Your task to perform on an android device: delete a single message in the gmail app Image 0: 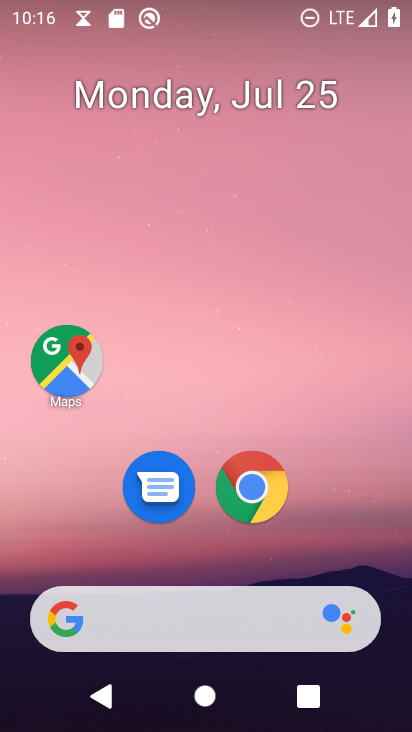
Step 0: drag from (206, 543) to (298, 18)
Your task to perform on an android device: delete a single message in the gmail app Image 1: 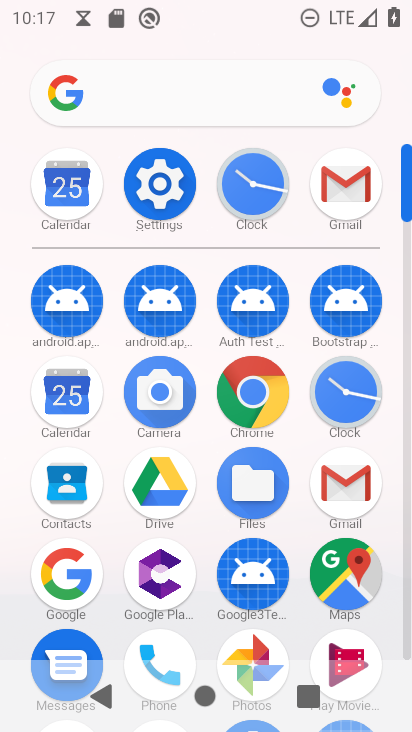
Step 1: click (347, 179)
Your task to perform on an android device: delete a single message in the gmail app Image 2: 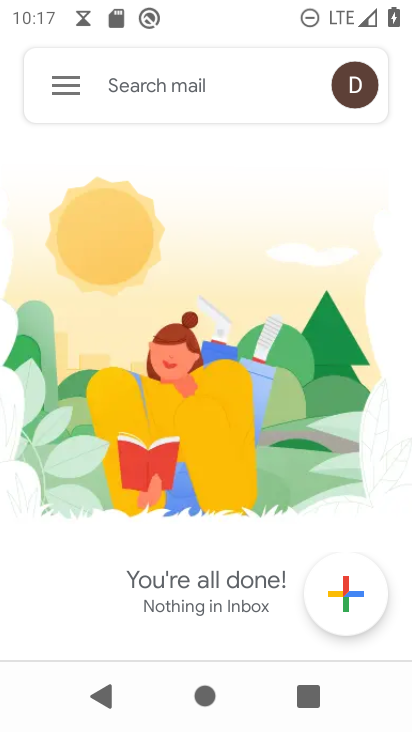
Step 2: click (35, 81)
Your task to perform on an android device: delete a single message in the gmail app Image 3: 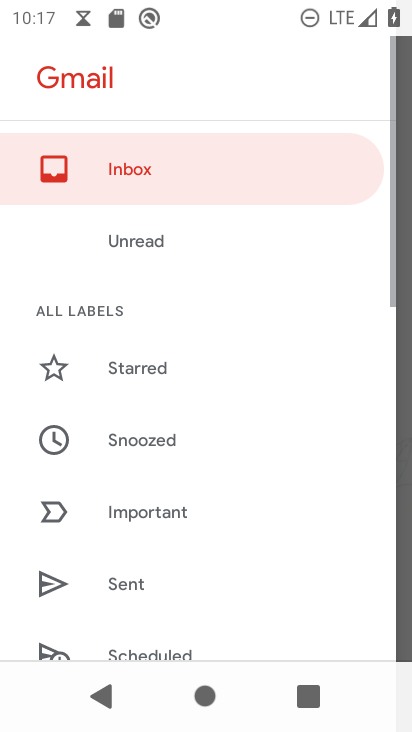
Step 3: drag from (175, 635) to (264, 263)
Your task to perform on an android device: delete a single message in the gmail app Image 4: 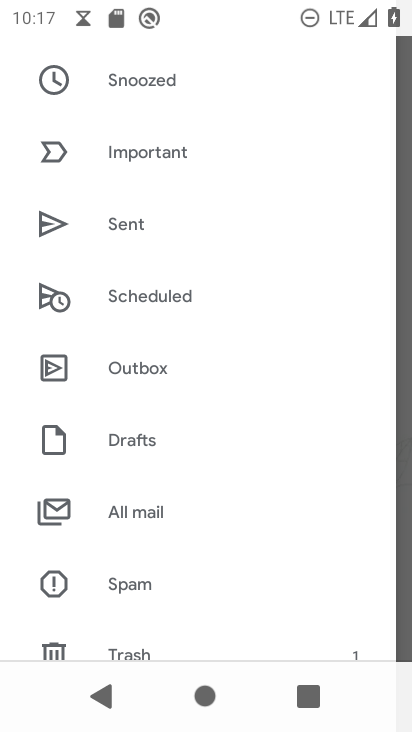
Step 4: click (148, 512)
Your task to perform on an android device: delete a single message in the gmail app Image 5: 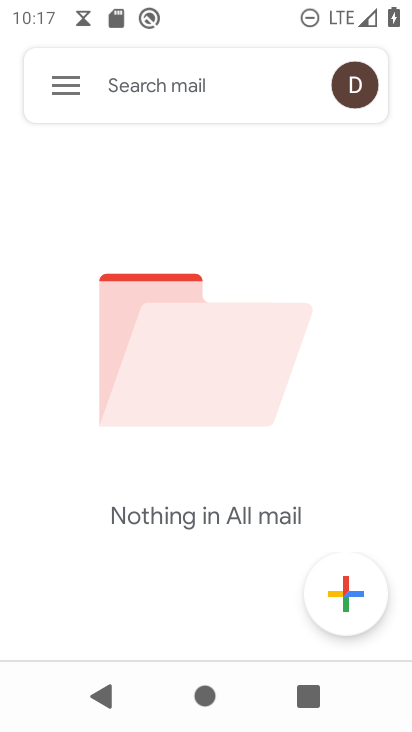
Step 5: task complete